Your task to perform on an android device: Open the web browser Image 0: 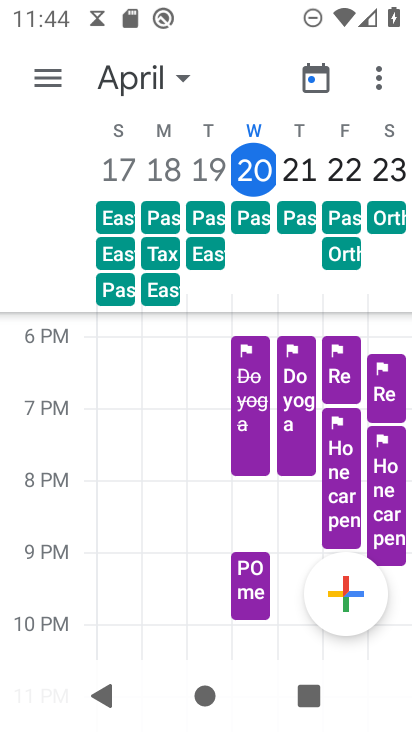
Step 0: drag from (332, 516) to (169, 67)
Your task to perform on an android device: Open the web browser Image 1: 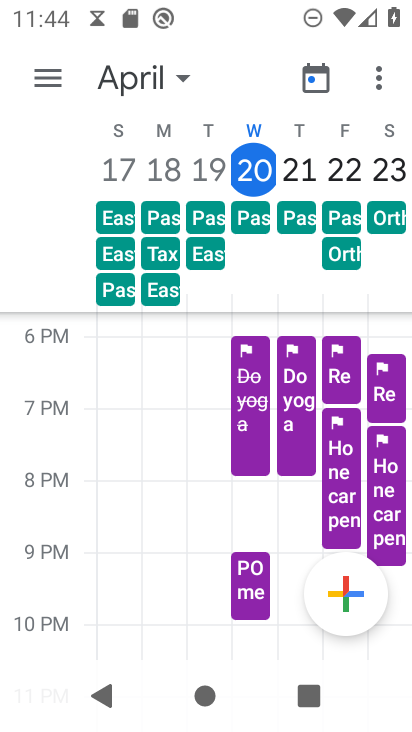
Step 1: press back button
Your task to perform on an android device: Open the web browser Image 2: 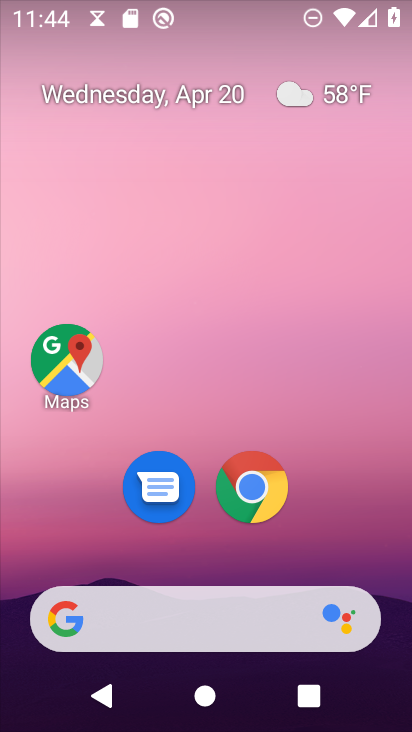
Step 2: drag from (320, 547) to (216, 99)
Your task to perform on an android device: Open the web browser Image 3: 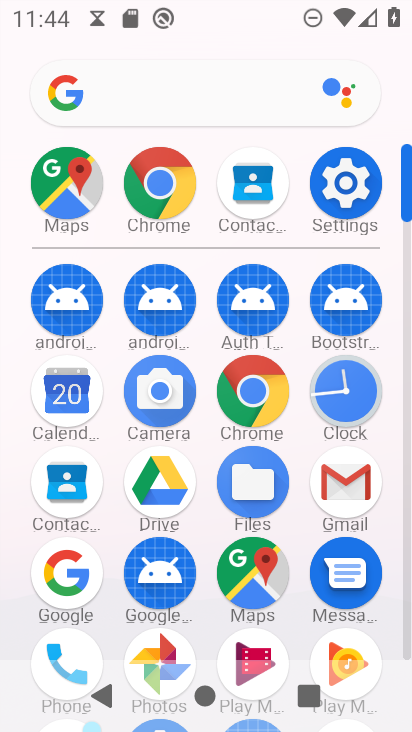
Step 3: click (159, 177)
Your task to perform on an android device: Open the web browser Image 4: 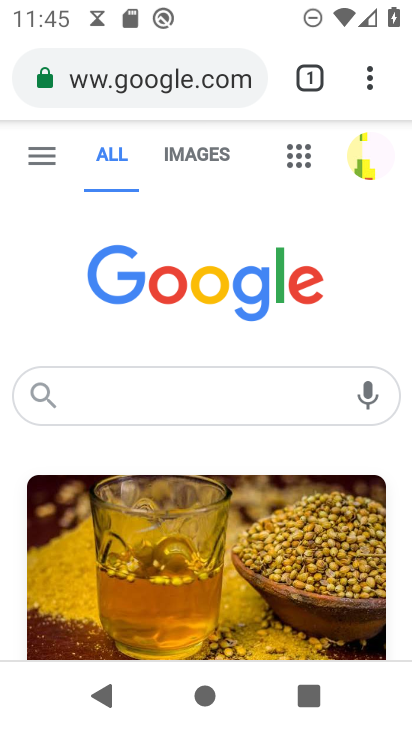
Step 4: task complete